Your task to perform on an android device: Go to Reddit.com Image 0: 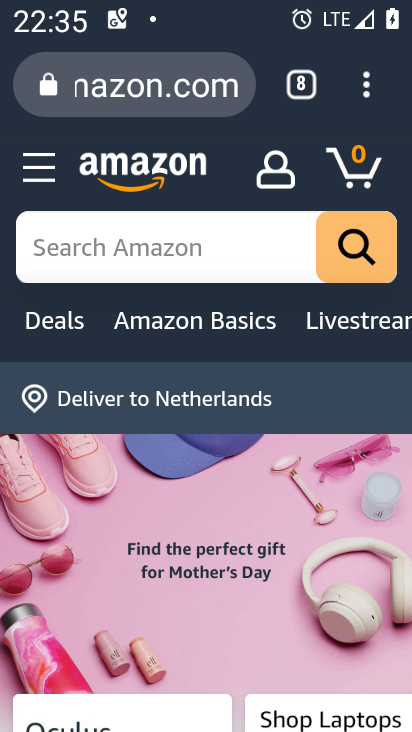
Step 0: click (214, 83)
Your task to perform on an android device: Go to Reddit.com Image 1: 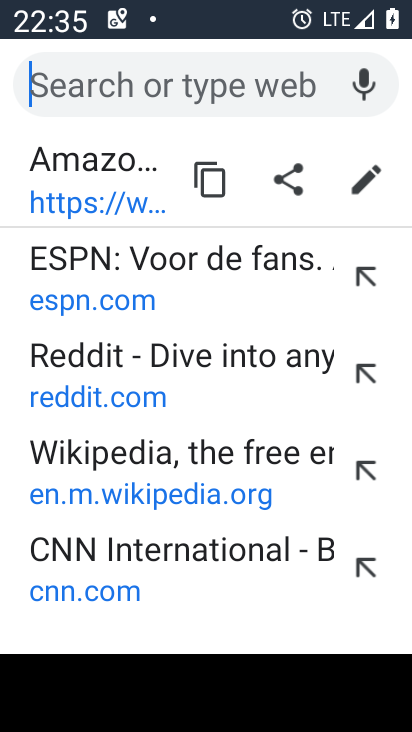
Step 1: click (217, 347)
Your task to perform on an android device: Go to Reddit.com Image 2: 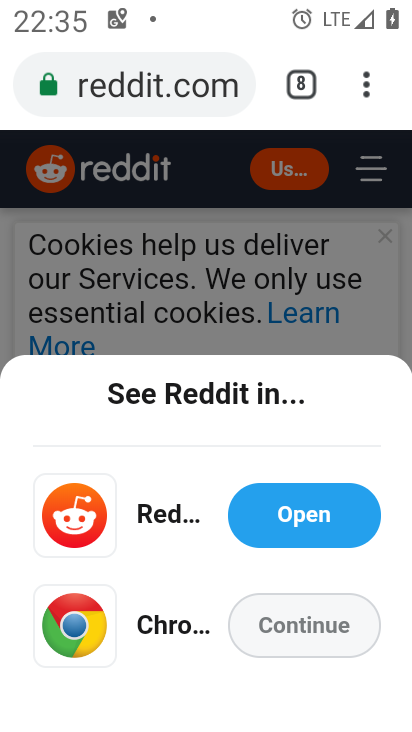
Step 2: task complete